Your task to perform on an android device: all mails in gmail Image 0: 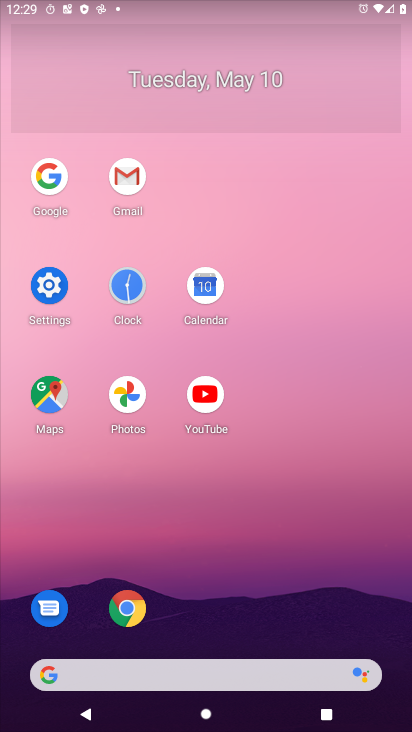
Step 0: click (128, 172)
Your task to perform on an android device: all mails in gmail Image 1: 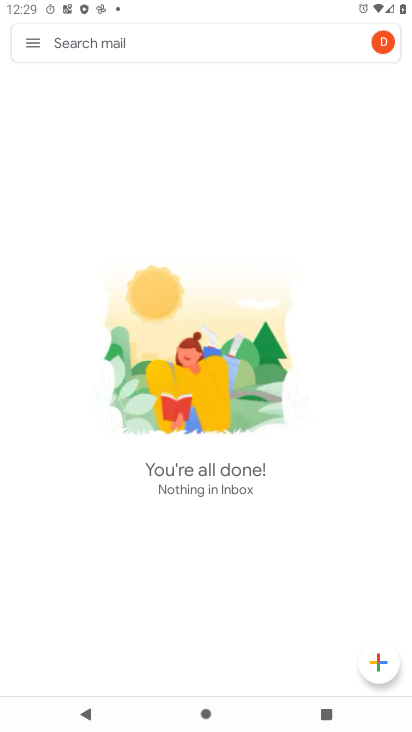
Step 1: click (35, 49)
Your task to perform on an android device: all mails in gmail Image 2: 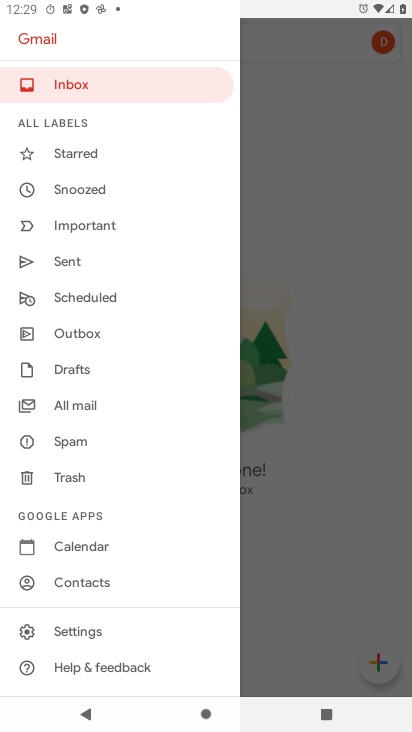
Step 2: click (108, 414)
Your task to perform on an android device: all mails in gmail Image 3: 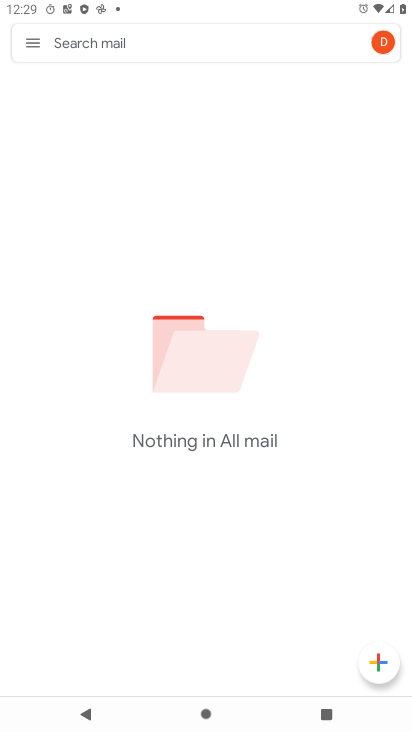
Step 3: task complete